Your task to perform on an android device: Open Amazon Image 0: 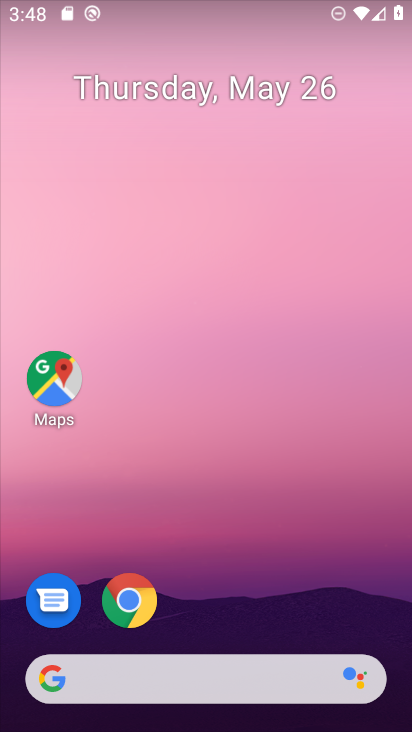
Step 0: drag from (238, 520) to (219, 33)
Your task to perform on an android device: Open Amazon Image 1: 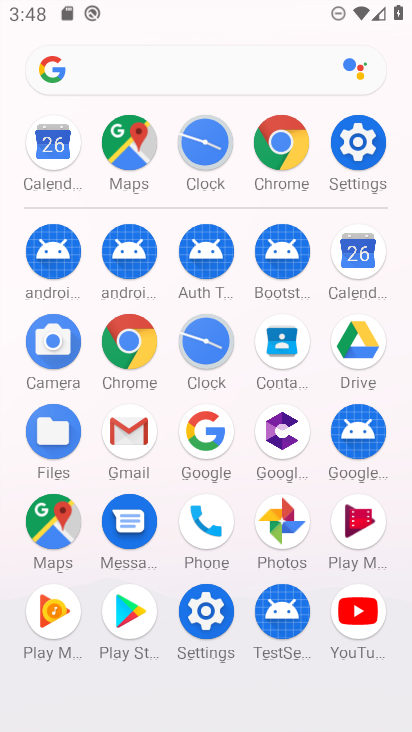
Step 1: drag from (0, 622) to (25, 271)
Your task to perform on an android device: Open Amazon Image 2: 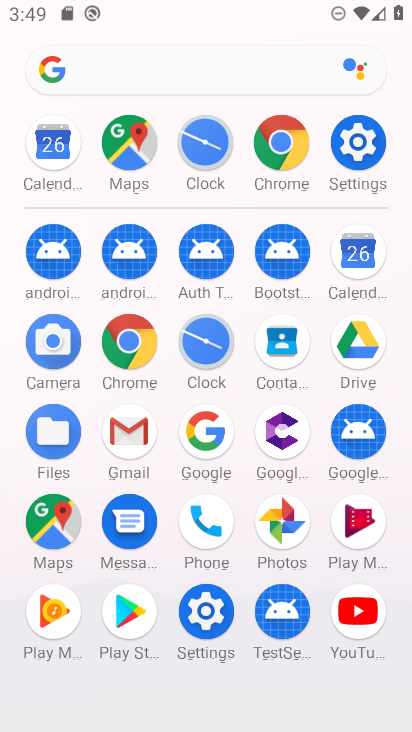
Step 2: click (128, 343)
Your task to perform on an android device: Open Amazon Image 3: 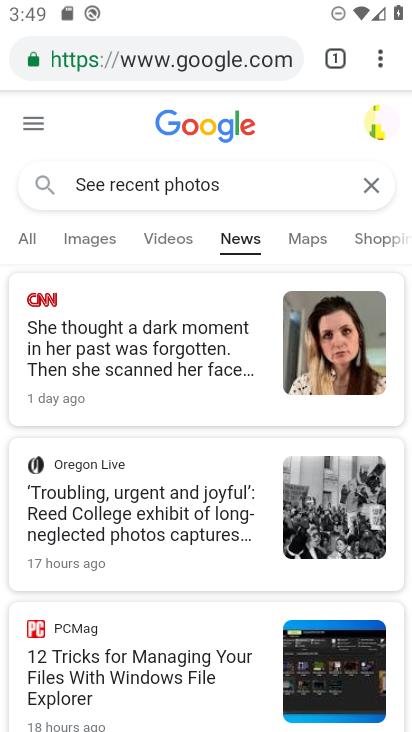
Step 3: click (199, 76)
Your task to perform on an android device: Open Amazon Image 4: 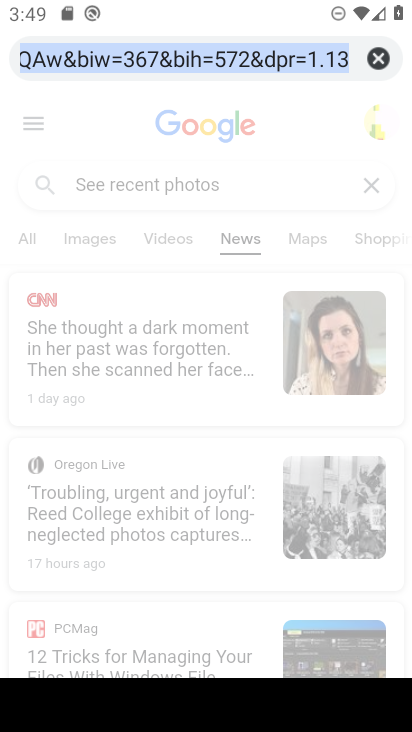
Step 4: click (374, 49)
Your task to perform on an android device: Open Amazon Image 5: 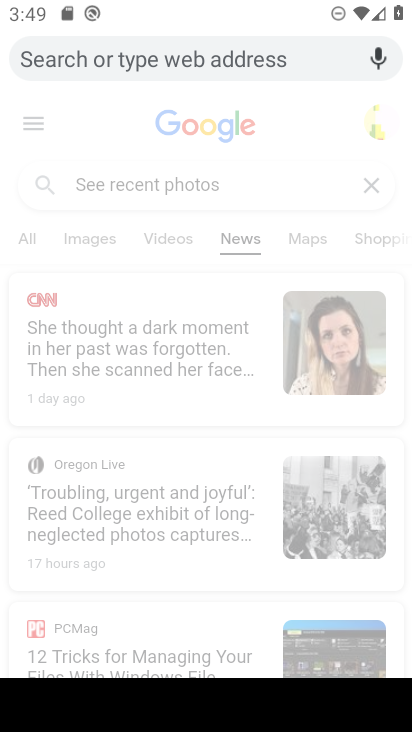
Step 5: type "Amazon"
Your task to perform on an android device: Open Amazon Image 6: 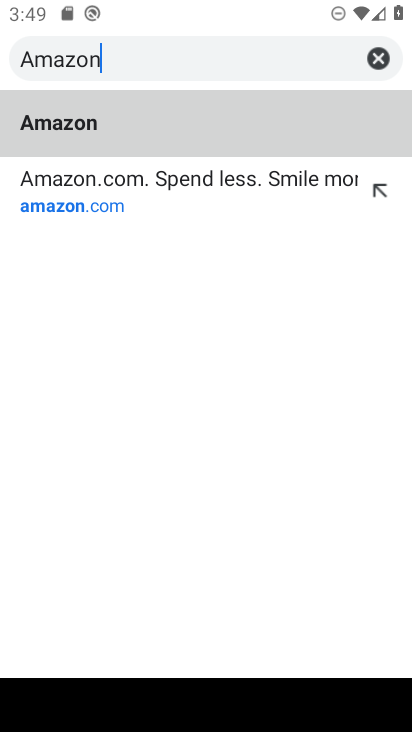
Step 6: type ""
Your task to perform on an android device: Open Amazon Image 7: 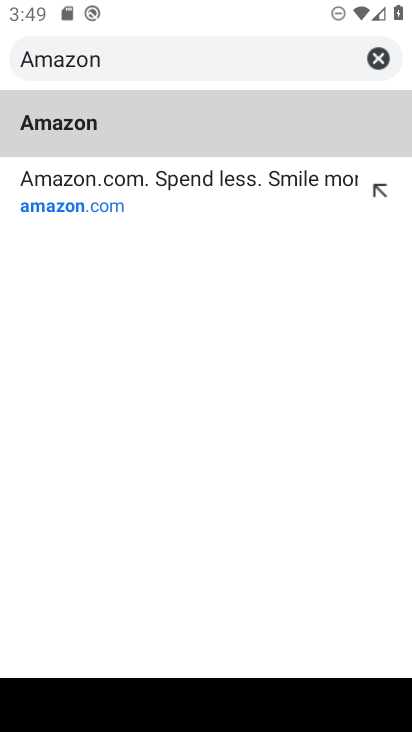
Step 7: click (126, 190)
Your task to perform on an android device: Open Amazon Image 8: 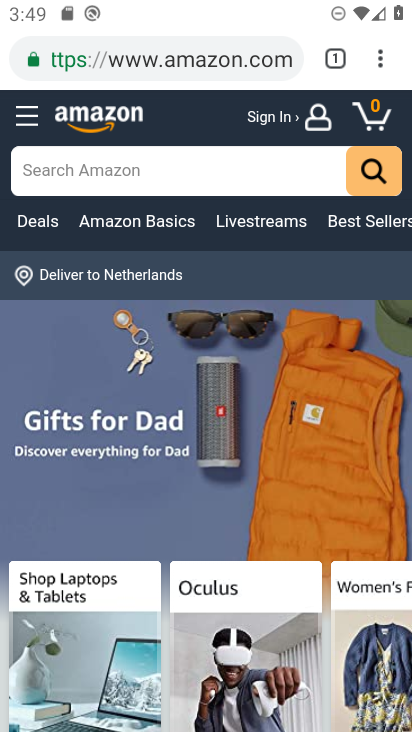
Step 8: task complete